Your task to perform on an android device: star an email in the gmail app Image 0: 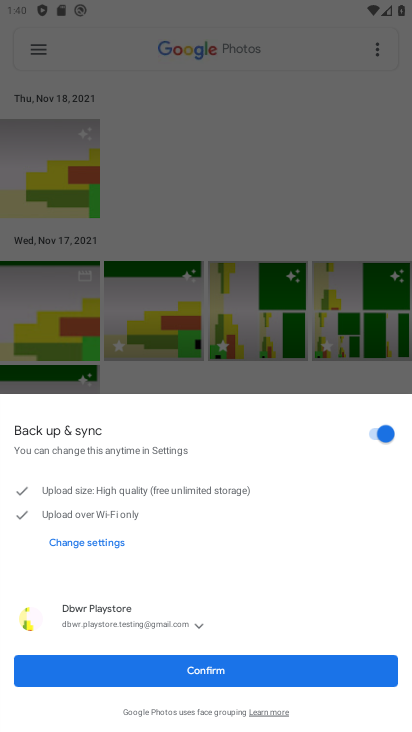
Step 0: press home button
Your task to perform on an android device: star an email in the gmail app Image 1: 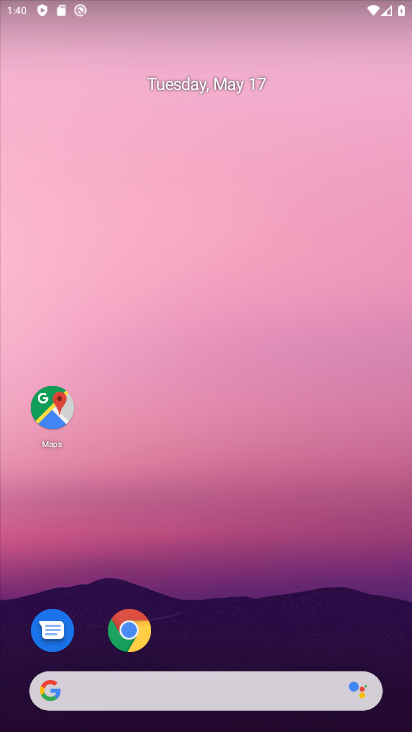
Step 1: drag from (372, 623) to (304, 222)
Your task to perform on an android device: star an email in the gmail app Image 2: 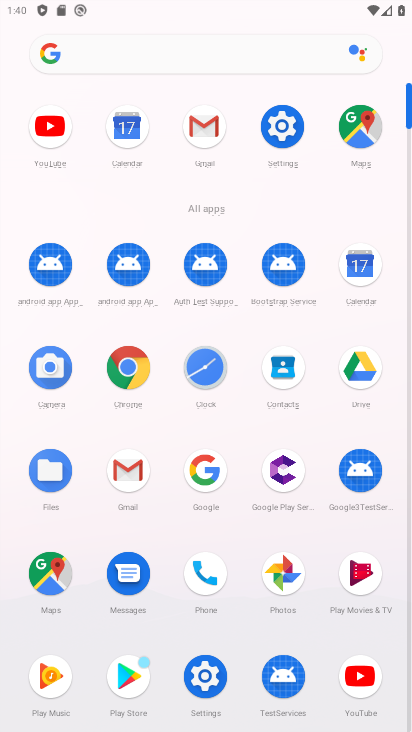
Step 2: click (126, 483)
Your task to perform on an android device: star an email in the gmail app Image 3: 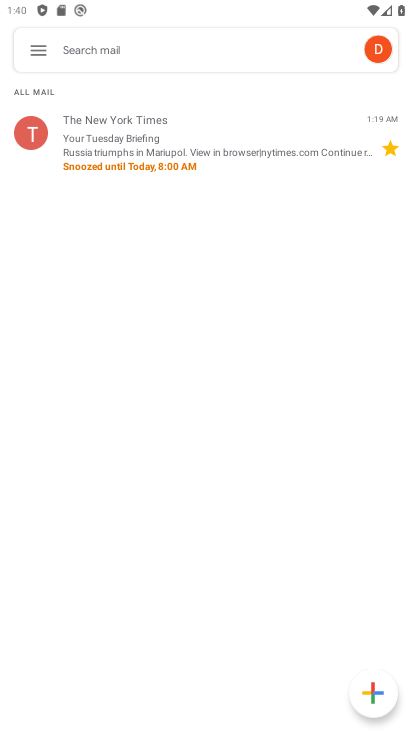
Step 3: task complete